Your task to perform on an android device: Open Yahoo.com Image 0: 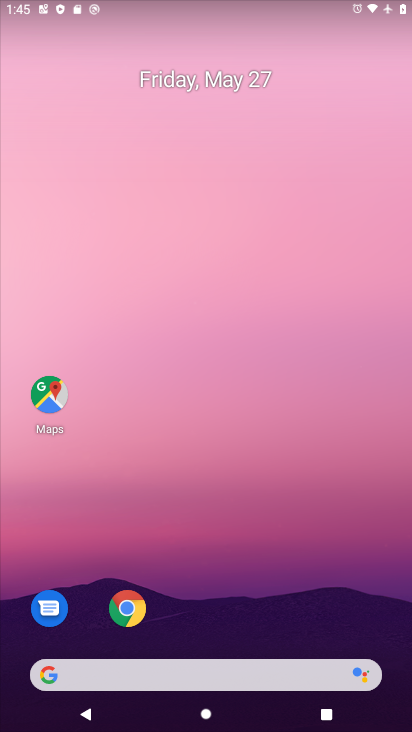
Step 0: press home button
Your task to perform on an android device: Open Yahoo.com Image 1: 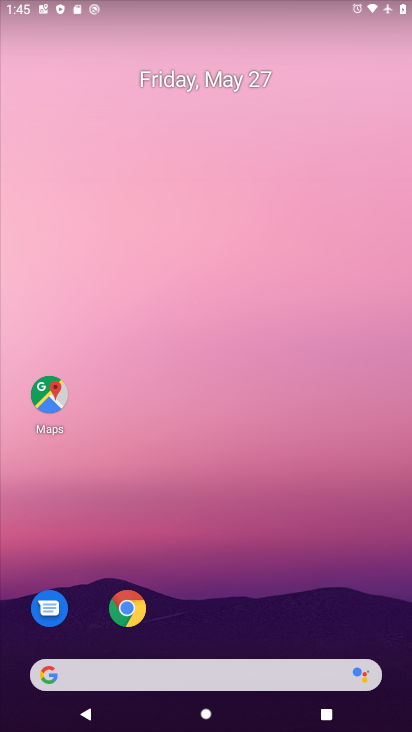
Step 1: click (126, 610)
Your task to perform on an android device: Open Yahoo.com Image 2: 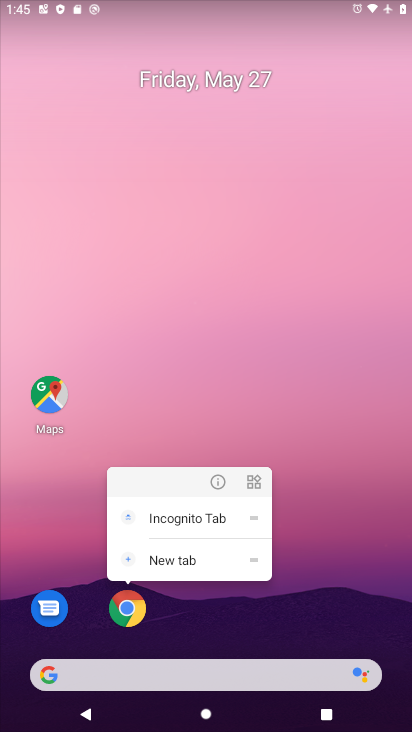
Step 2: click (146, 623)
Your task to perform on an android device: Open Yahoo.com Image 3: 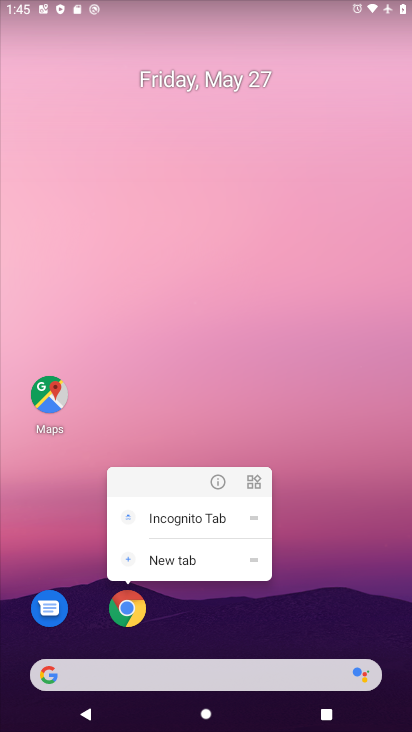
Step 3: click (132, 609)
Your task to perform on an android device: Open Yahoo.com Image 4: 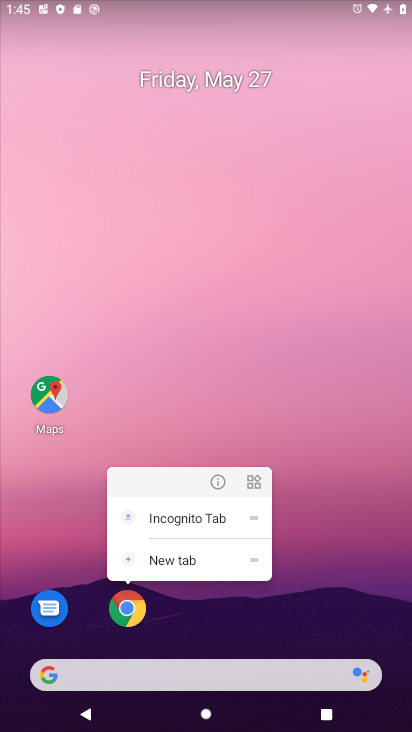
Step 4: click (131, 608)
Your task to perform on an android device: Open Yahoo.com Image 5: 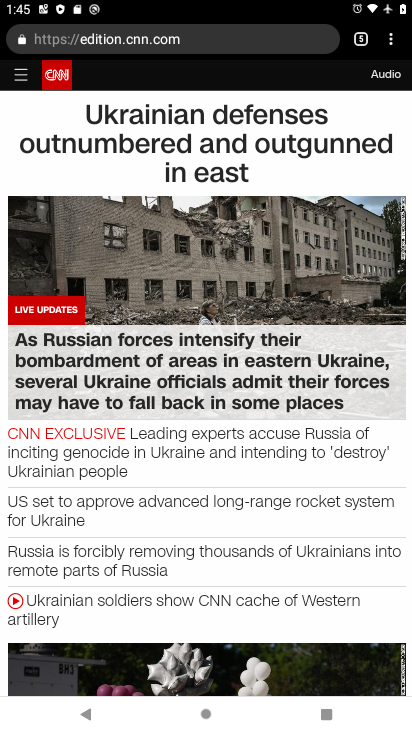
Step 5: drag from (391, 44) to (314, 72)
Your task to perform on an android device: Open Yahoo.com Image 6: 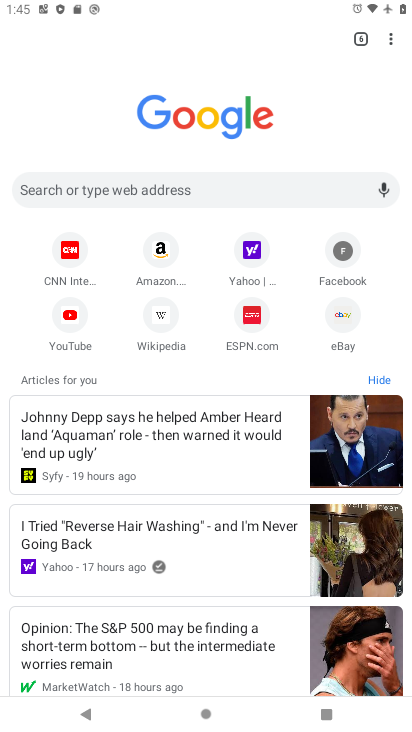
Step 6: click (246, 253)
Your task to perform on an android device: Open Yahoo.com Image 7: 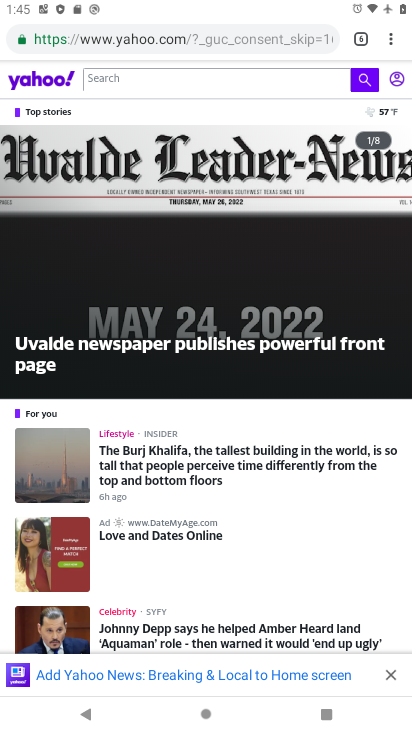
Step 7: task complete